Your task to perform on an android device: snooze an email in the gmail app Image 0: 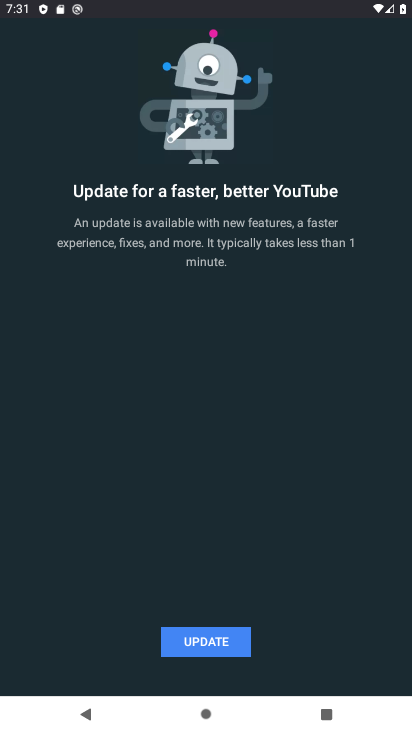
Step 0: press home button
Your task to perform on an android device: snooze an email in the gmail app Image 1: 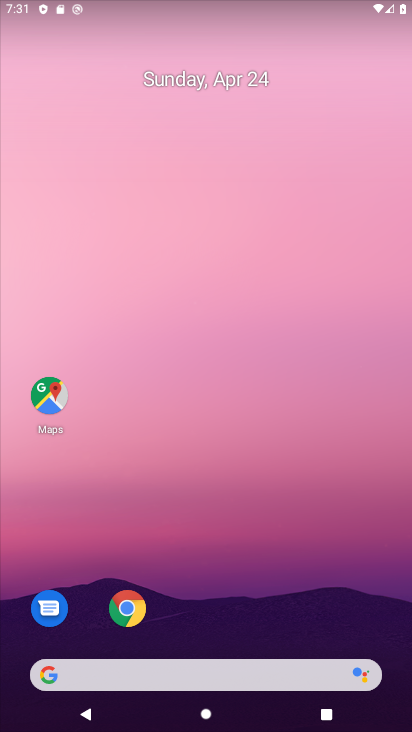
Step 1: drag from (276, 600) to (315, 70)
Your task to perform on an android device: snooze an email in the gmail app Image 2: 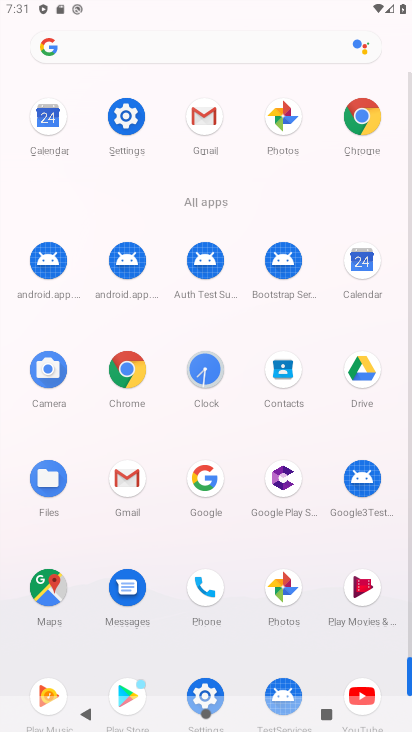
Step 2: click (201, 114)
Your task to perform on an android device: snooze an email in the gmail app Image 3: 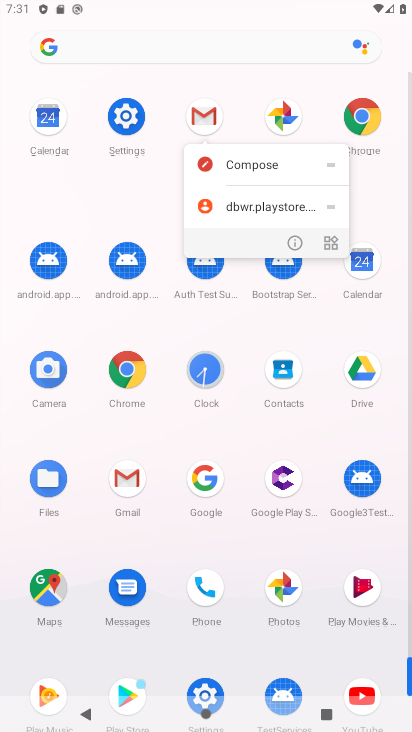
Step 3: click (201, 116)
Your task to perform on an android device: snooze an email in the gmail app Image 4: 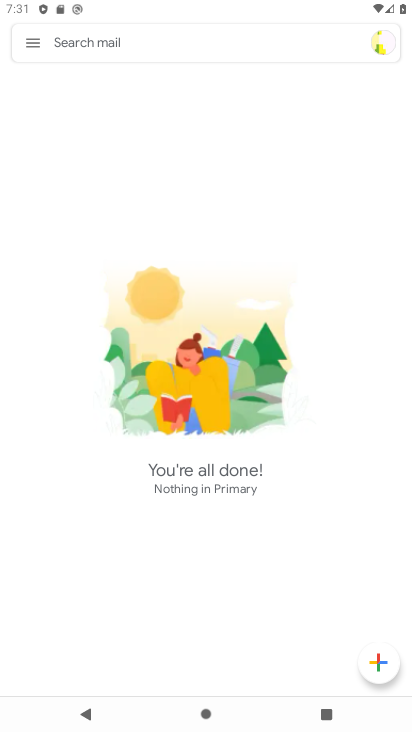
Step 4: click (32, 41)
Your task to perform on an android device: snooze an email in the gmail app Image 5: 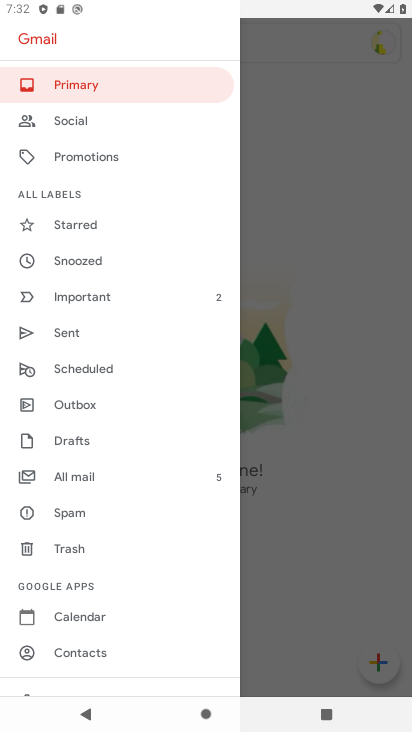
Step 5: click (89, 476)
Your task to perform on an android device: snooze an email in the gmail app Image 6: 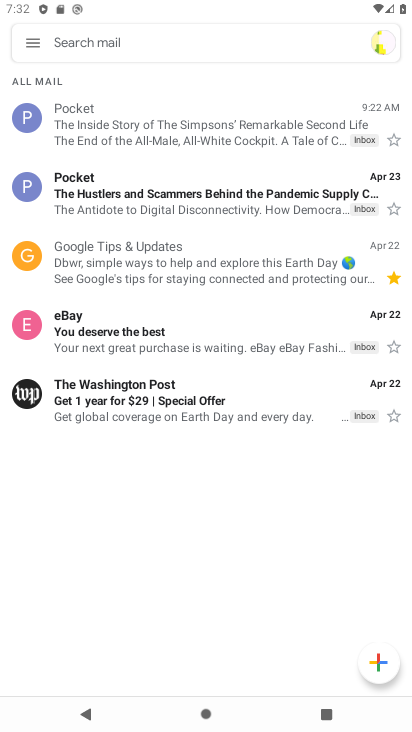
Step 6: click (230, 130)
Your task to perform on an android device: snooze an email in the gmail app Image 7: 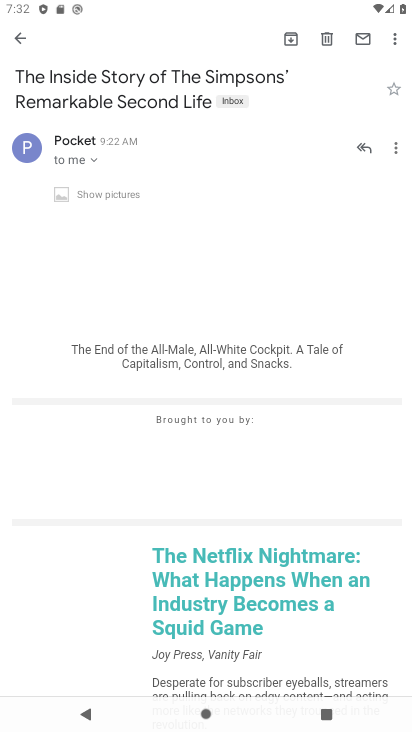
Step 7: click (394, 149)
Your task to perform on an android device: snooze an email in the gmail app Image 8: 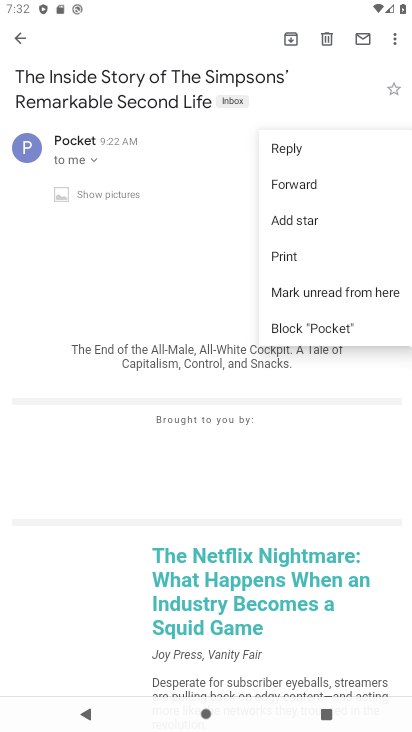
Step 8: click (396, 38)
Your task to perform on an android device: snooze an email in the gmail app Image 9: 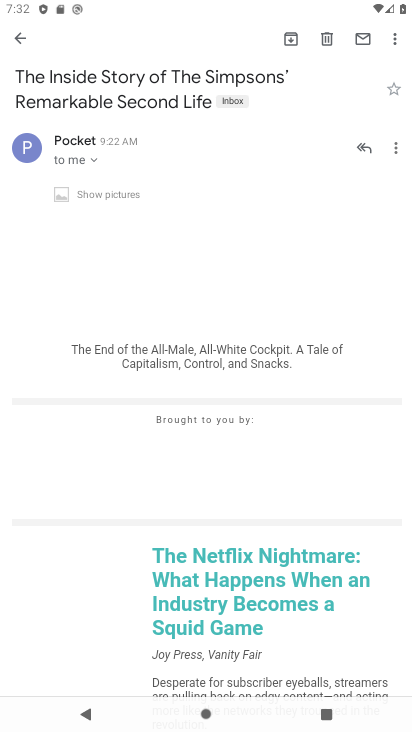
Step 9: click (396, 38)
Your task to perform on an android device: snooze an email in the gmail app Image 10: 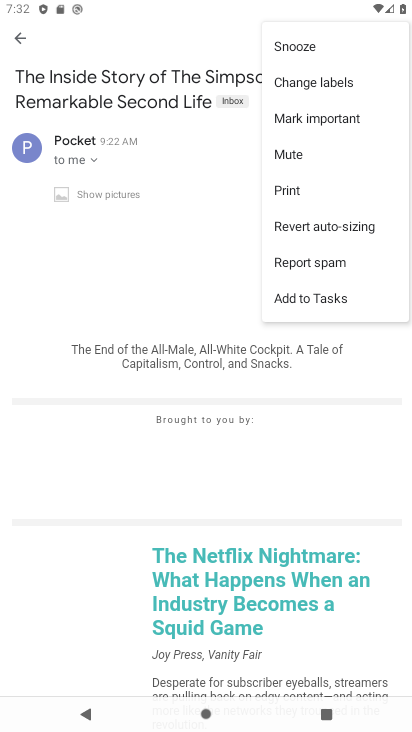
Step 10: click (362, 39)
Your task to perform on an android device: snooze an email in the gmail app Image 11: 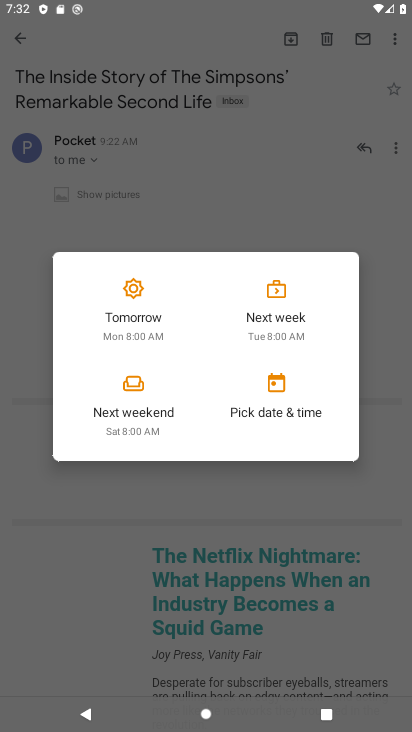
Step 11: click (139, 304)
Your task to perform on an android device: snooze an email in the gmail app Image 12: 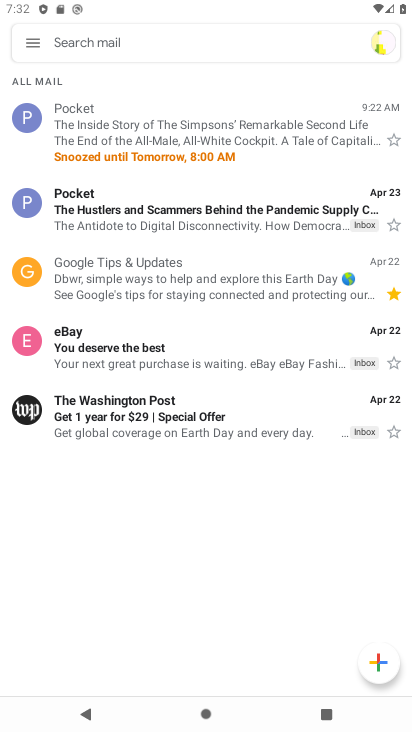
Step 12: task complete